Your task to perform on an android device: Go to notification settings Image 0: 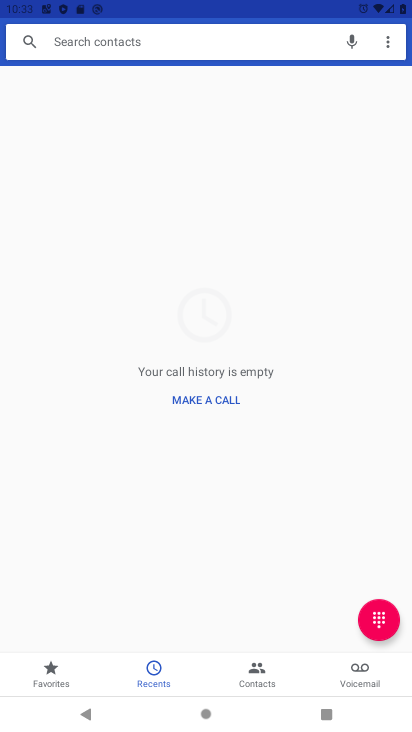
Step 0: press home button
Your task to perform on an android device: Go to notification settings Image 1: 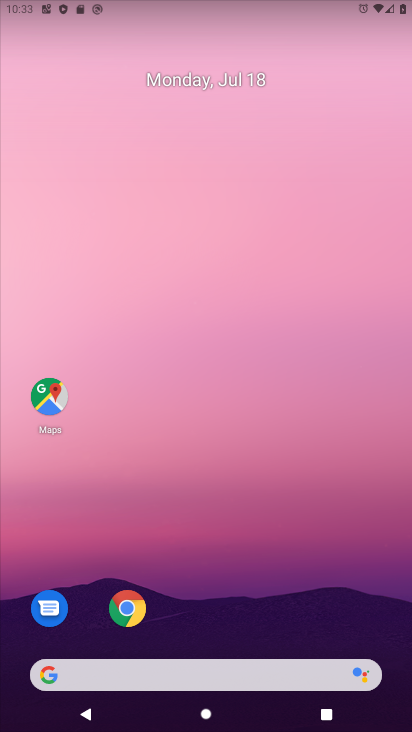
Step 1: drag from (38, 702) to (182, 73)
Your task to perform on an android device: Go to notification settings Image 2: 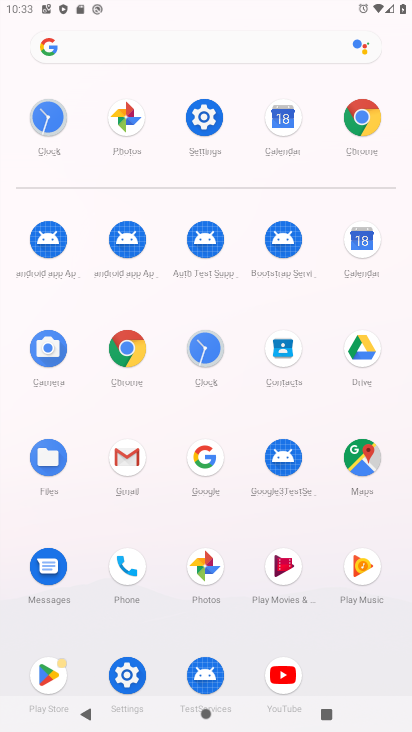
Step 2: click (129, 671)
Your task to perform on an android device: Go to notification settings Image 3: 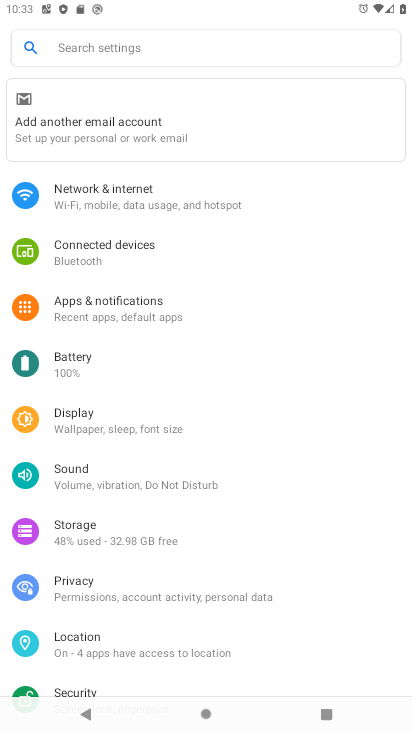
Step 3: click (106, 310)
Your task to perform on an android device: Go to notification settings Image 4: 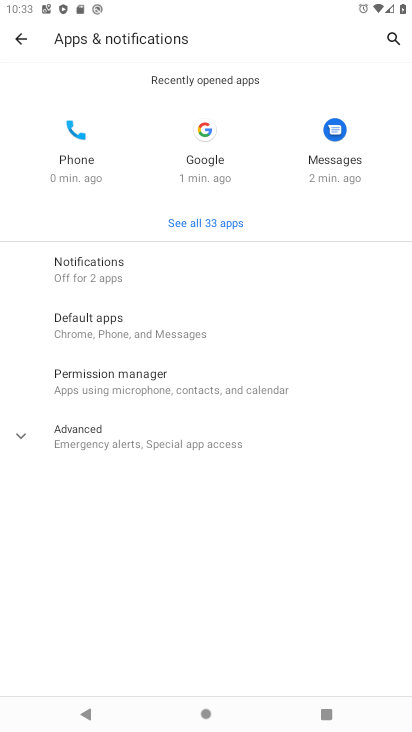
Step 4: task complete